Your task to perform on an android device: Go to Wikipedia Image 0: 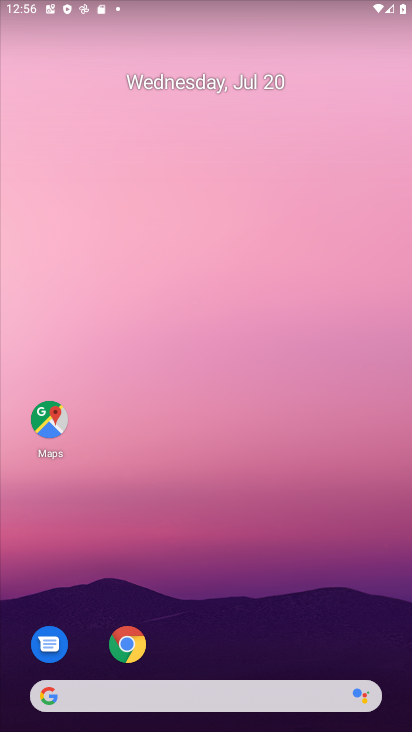
Step 0: press home button
Your task to perform on an android device: Go to Wikipedia Image 1: 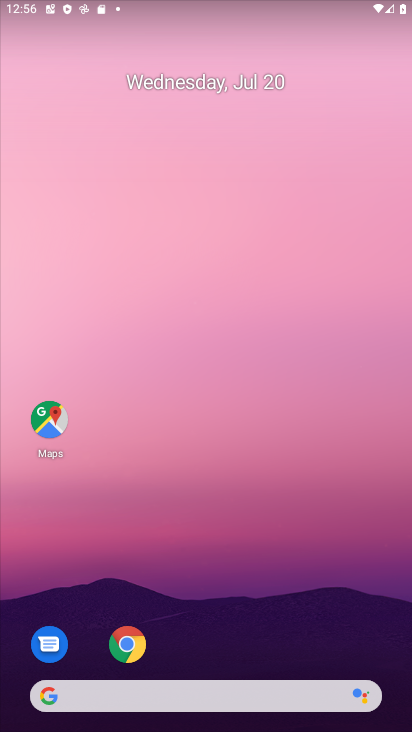
Step 1: press home button
Your task to perform on an android device: Go to Wikipedia Image 2: 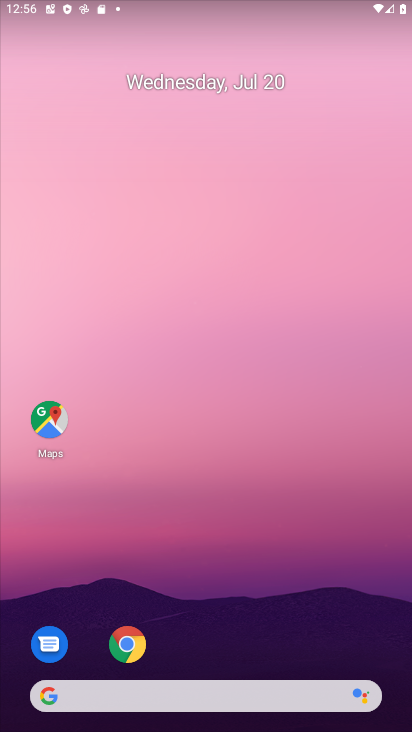
Step 2: click (111, 646)
Your task to perform on an android device: Go to Wikipedia Image 3: 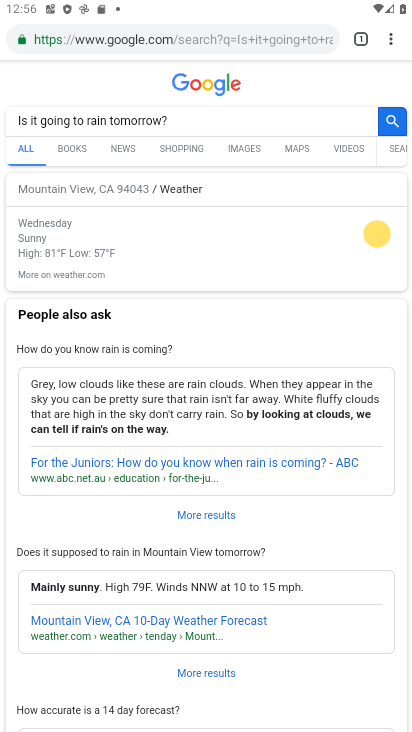
Step 3: click (323, 40)
Your task to perform on an android device: Go to Wikipedia Image 4: 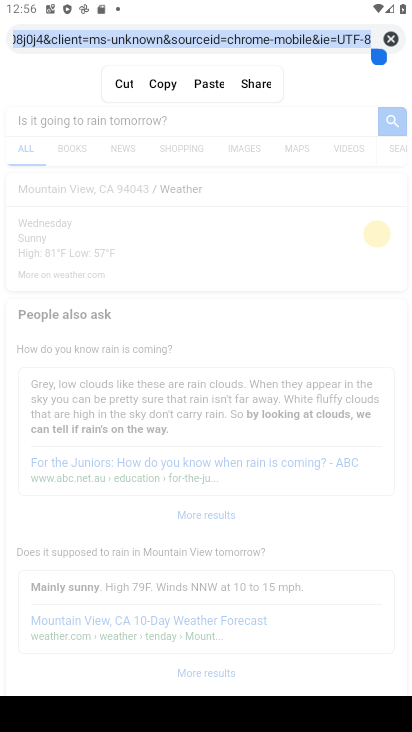
Step 4: type "Wikipedia"
Your task to perform on an android device: Go to Wikipedia Image 5: 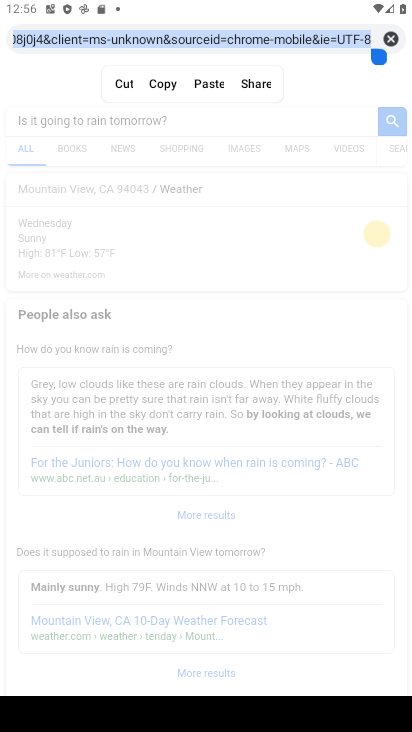
Step 5: click (207, 89)
Your task to perform on an android device: Go to Wikipedia Image 6: 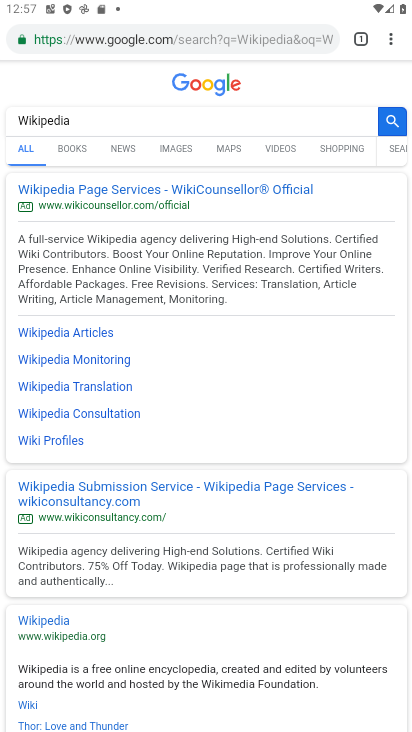
Step 6: click (67, 619)
Your task to perform on an android device: Go to Wikipedia Image 7: 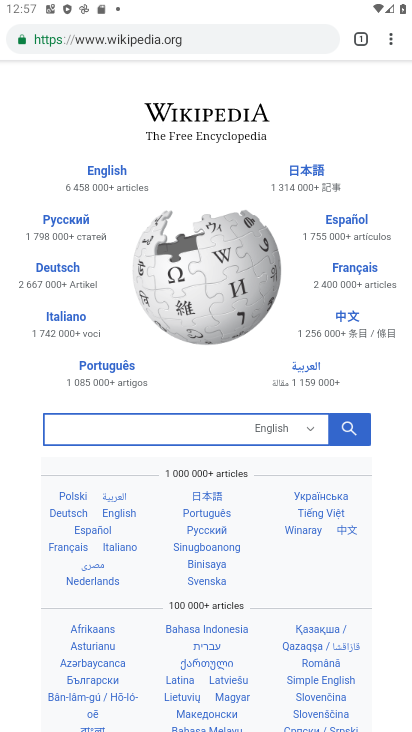
Step 7: task complete